Your task to perform on an android device: check android version Image 0: 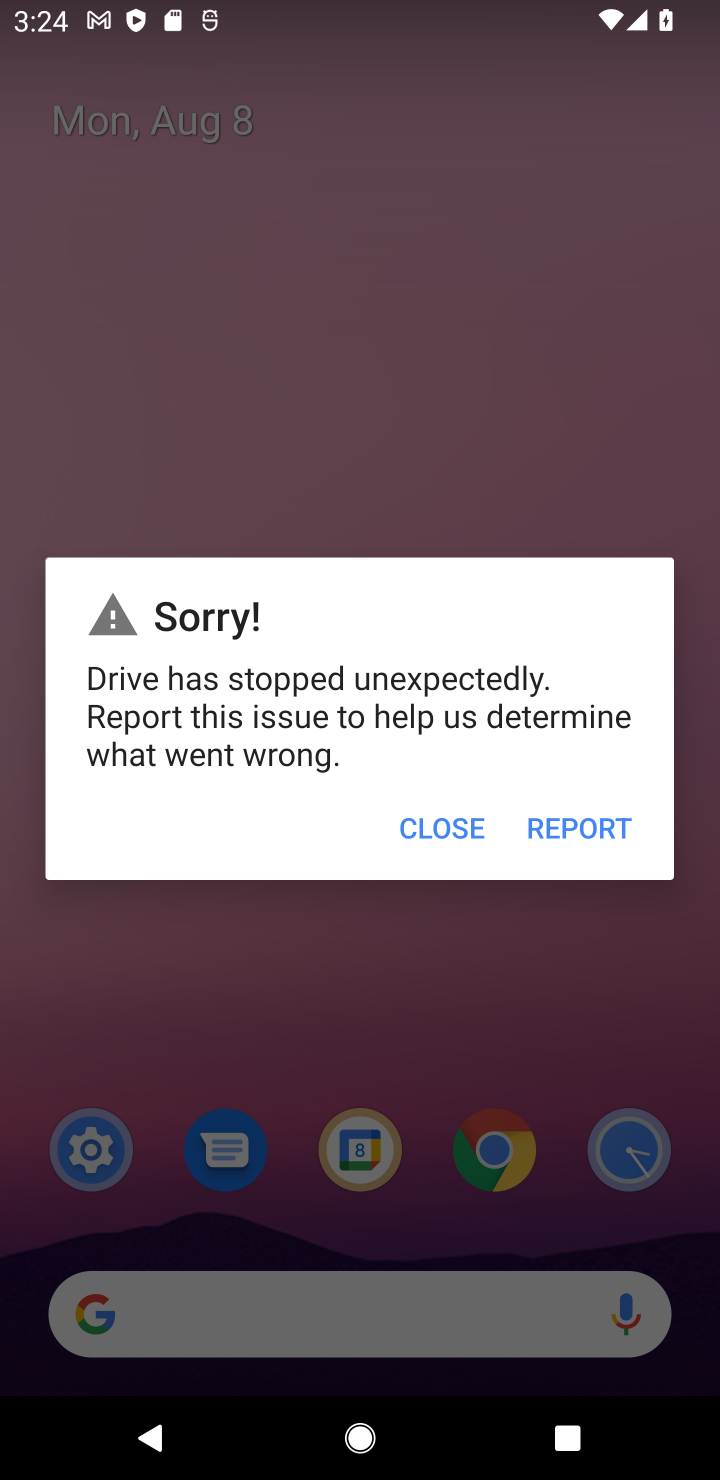
Step 0: press home button
Your task to perform on an android device: check android version Image 1: 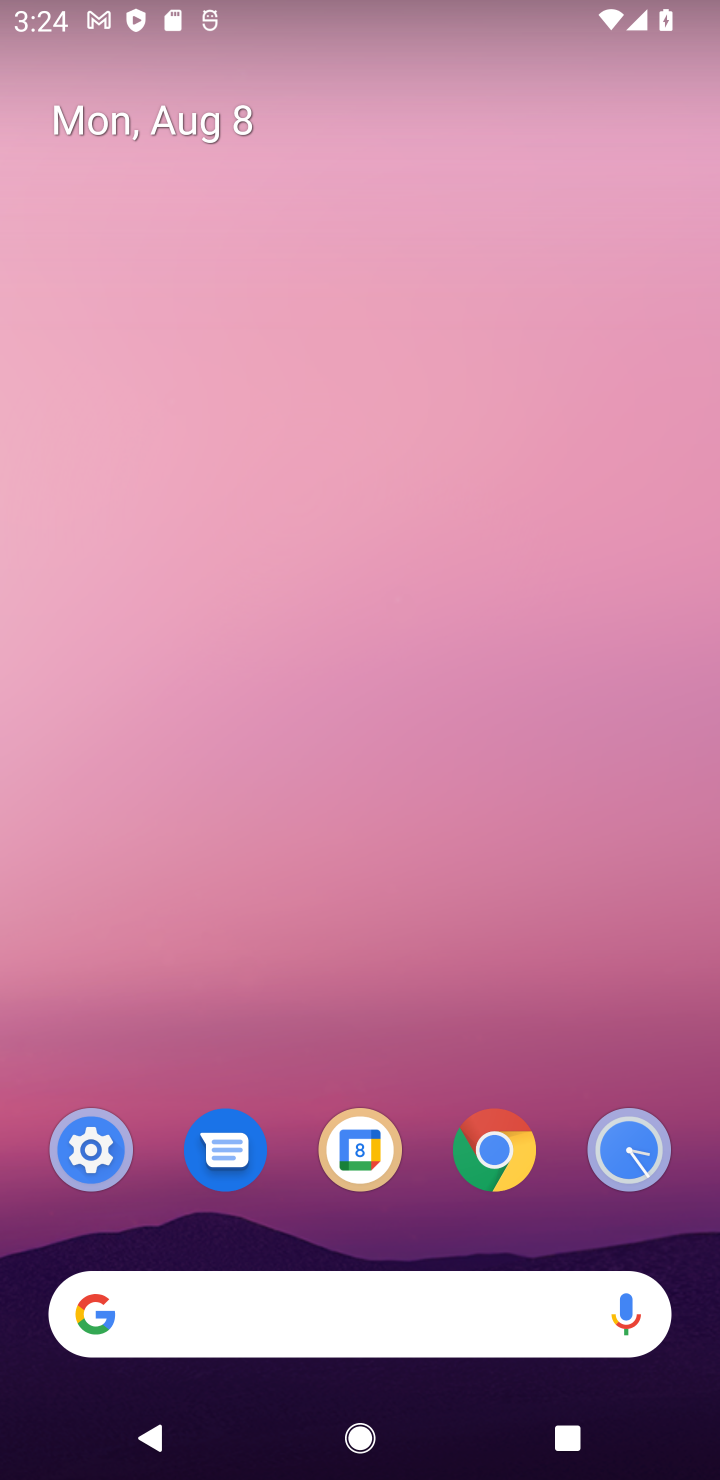
Step 1: press home button
Your task to perform on an android device: check android version Image 2: 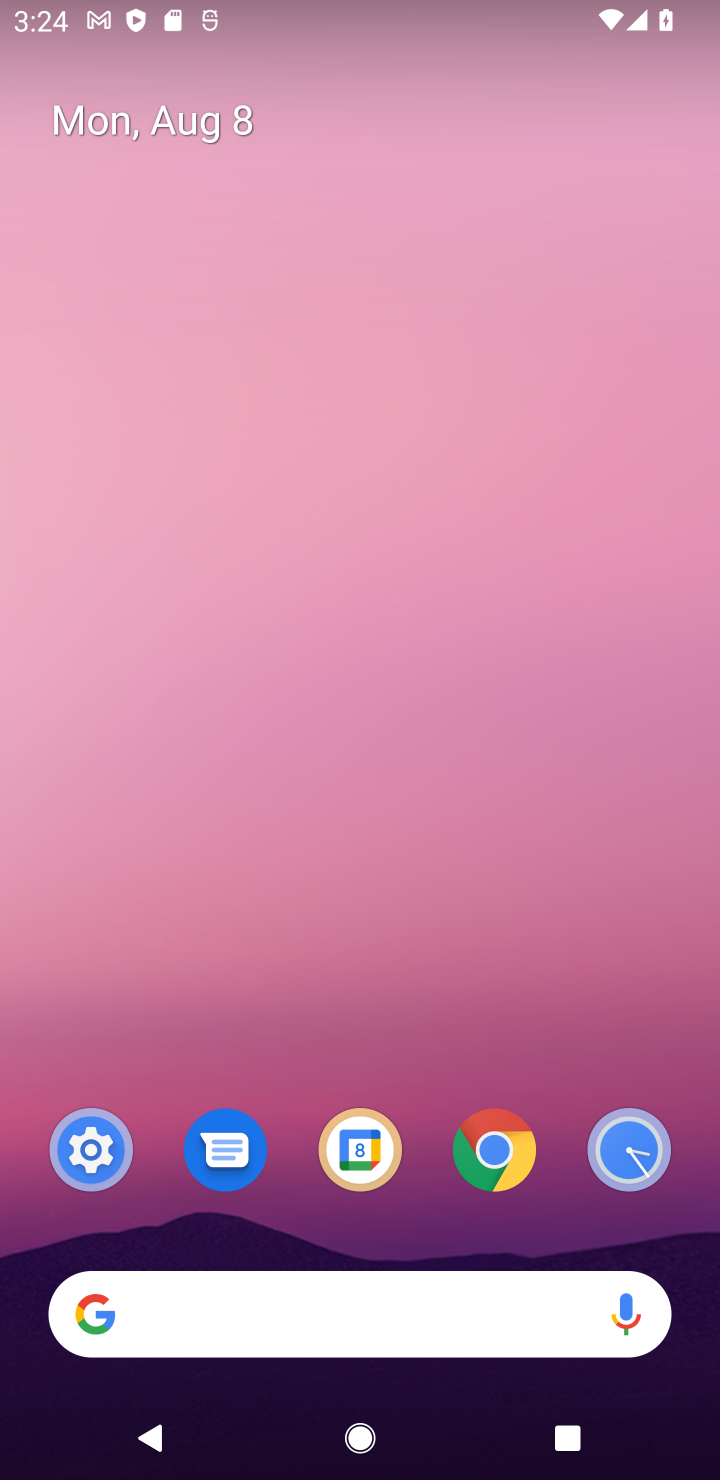
Step 2: click (131, 1199)
Your task to perform on an android device: check android version Image 3: 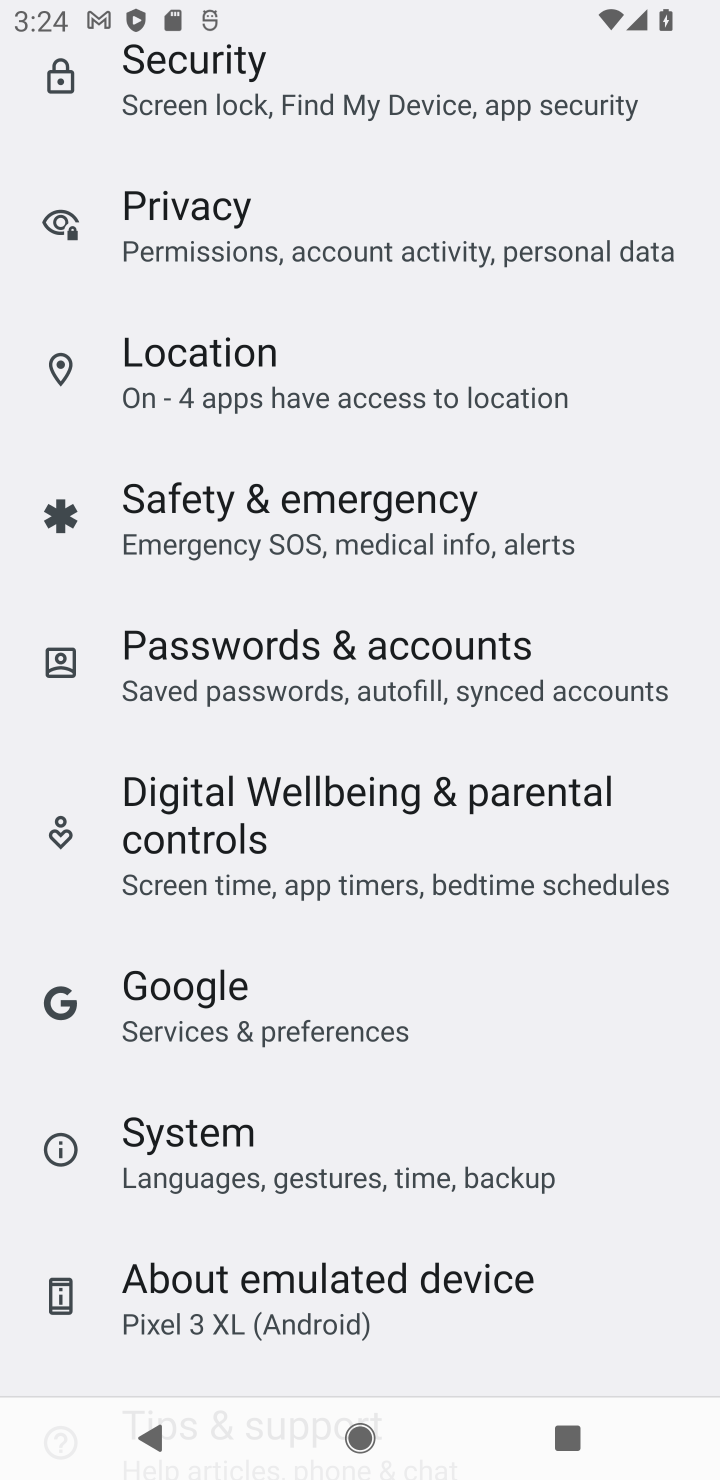
Step 3: task complete